Your task to perform on an android device: Go to notification settings Image 0: 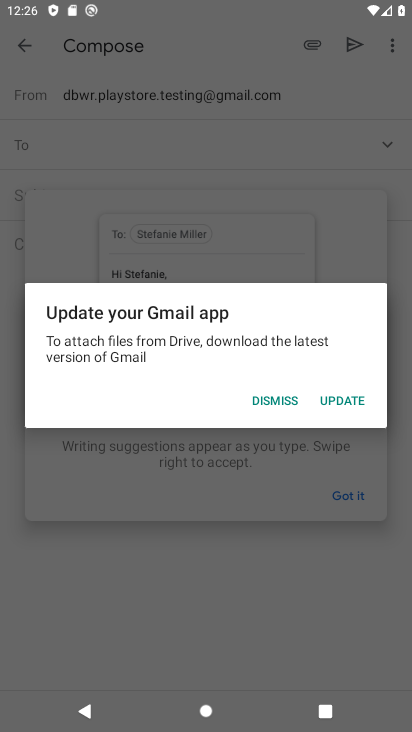
Step 0: press home button
Your task to perform on an android device: Go to notification settings Image 1: 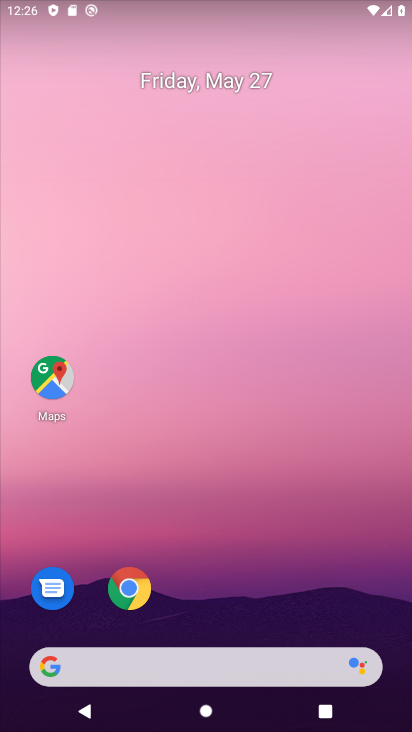
Step 1: drag from (212, 615) to (197, 80)
Your task to perform on an android device: Go to notification settings Image 2: 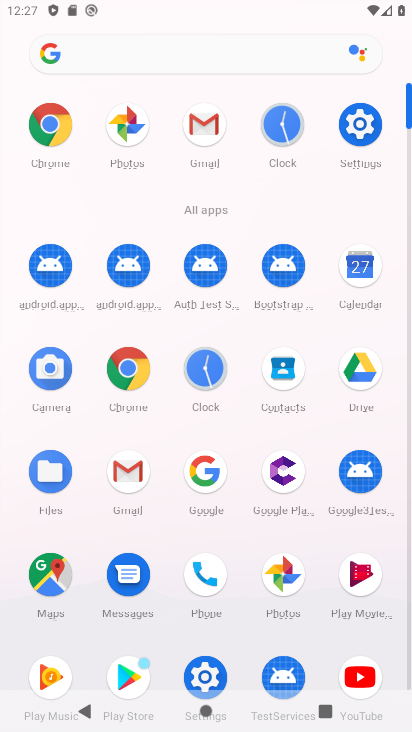
Step 2: click (357, 118)
Your task to perform on an android device: Go to notification settings Image 3: 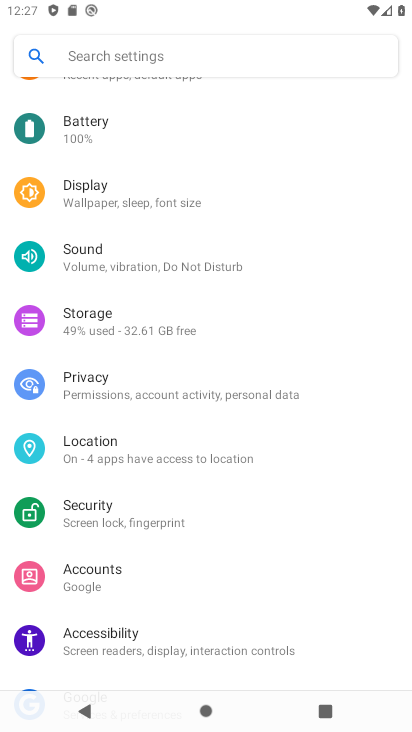
Step 3: drag from (138, 172) to (124, 547)
Your task to perform on an android device: Go to notification settings Image 4: 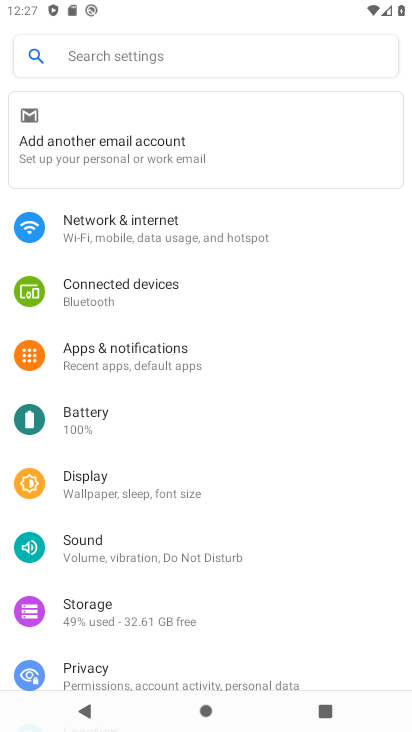
Step 4: click (153, 351)
Your task to perform on an android device: Go to notification settings Image 5: 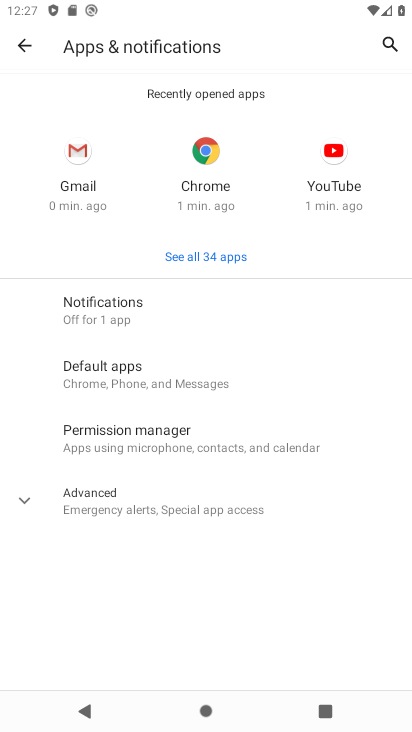
Step 5: click (143, 308)
Your task to perform on an android device: Go to notification settings Image 6: 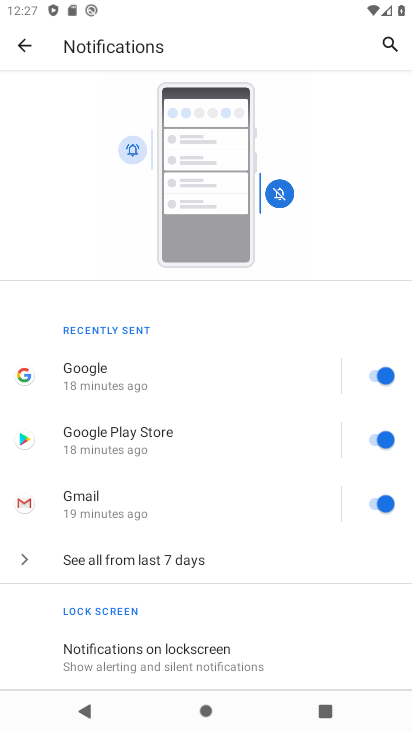
Step 6: drag from (221, 647) to (228, 145)
Your task to perform on an android device: Go to notification settings Image 7: 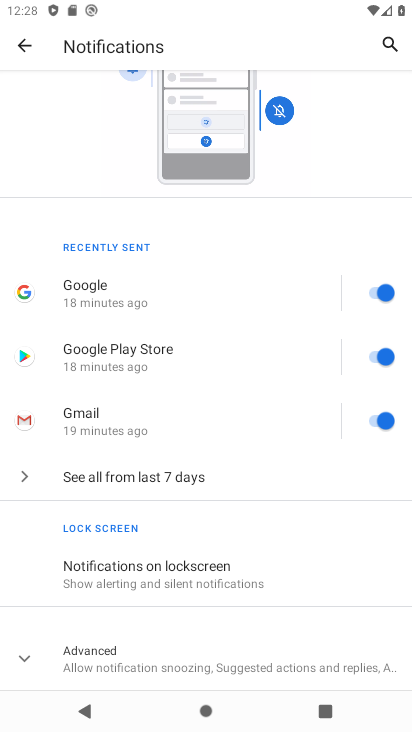
Step 7: click (22, 652)
Your task to perform on an android device: Go to notification settings Image 8: 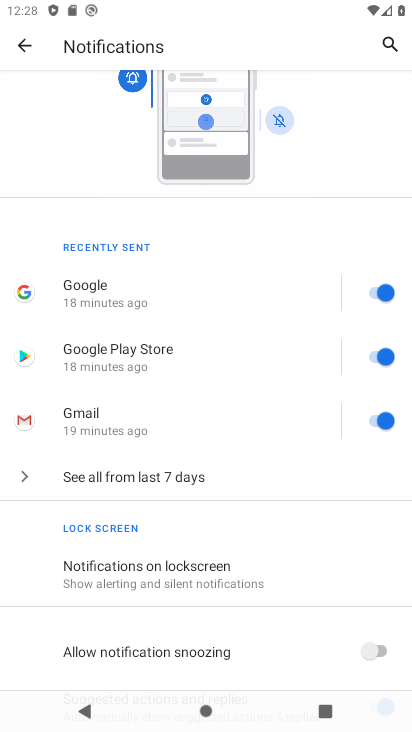
Step 8: task complete